Your task to perform on an android device: Go to Android settings Image 0: 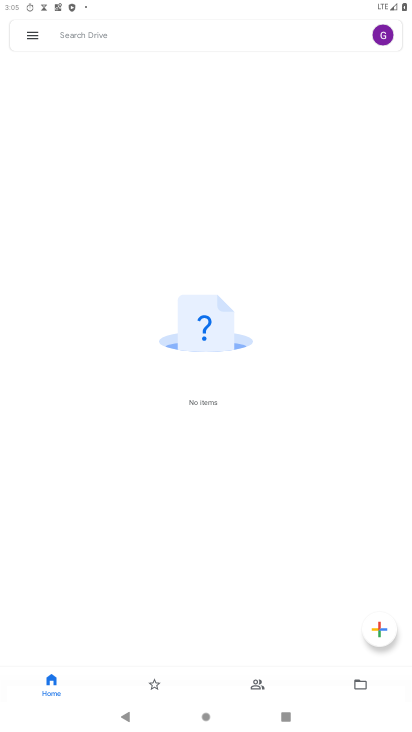
Step 0: press home button
Your task to perform on an android device: Go to Android settings Image 1: 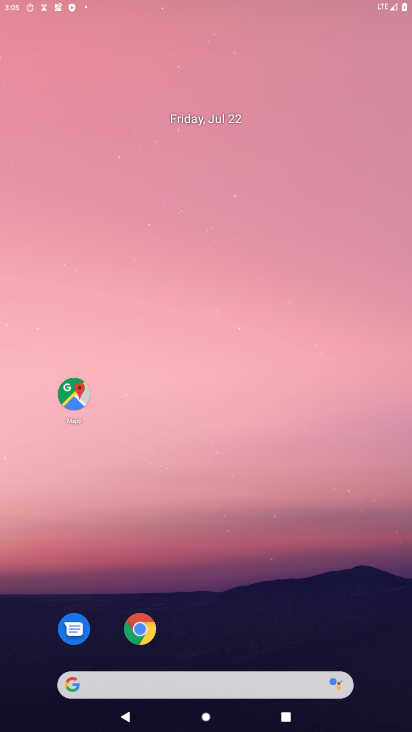
Step 1: drag from (213, 625) to (225, 34)
Your task to perform on an android device: Go to Android settings Image 2: 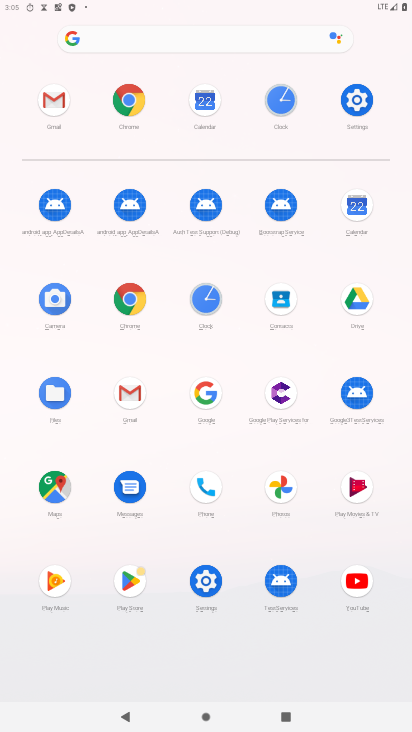
Step 2: click (206, 579)
Your task to perform on an android device: Go to Android settings Image 3: 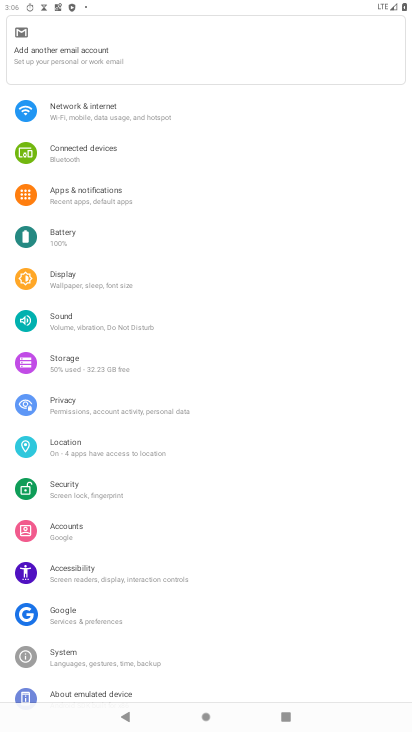
Step 3: drag from (152, 691) to (197, 305)
Your task to perform on an android device: Go to Android settings Image 4: 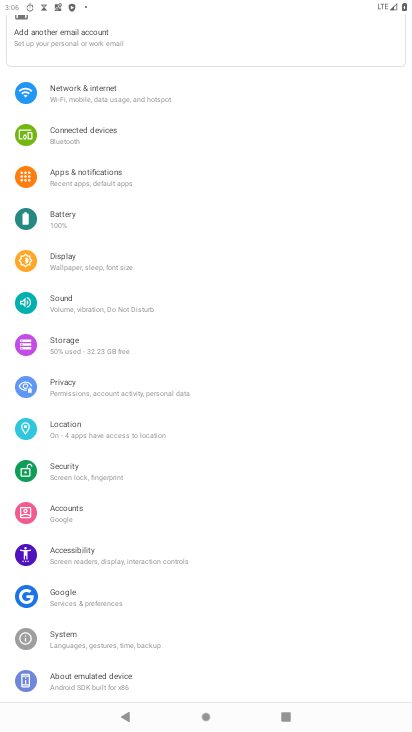
Step 4: click (147, 687)
Your task to perform on an android device: Go to Android settings Image 5: 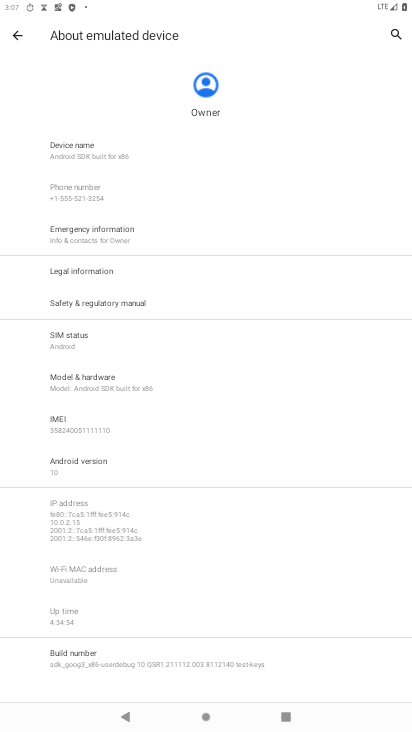
Step 5: click (107, 466)
Your task to perform on an android device: Go to Android settings Image 6: 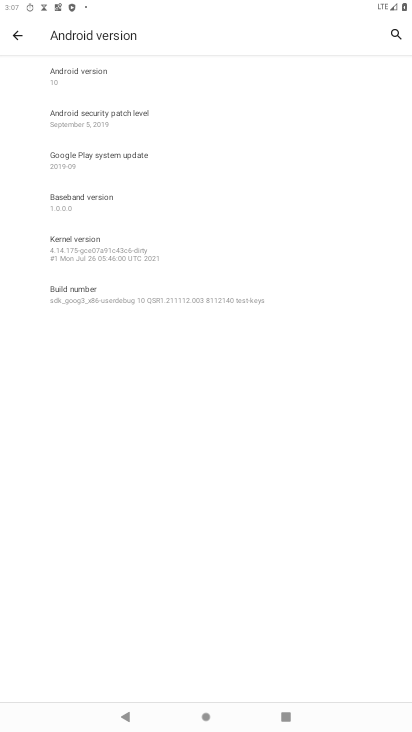
Step 6: task complete